Your task to perform on an android device: turn on priority inbox in the gmail app Image 0: 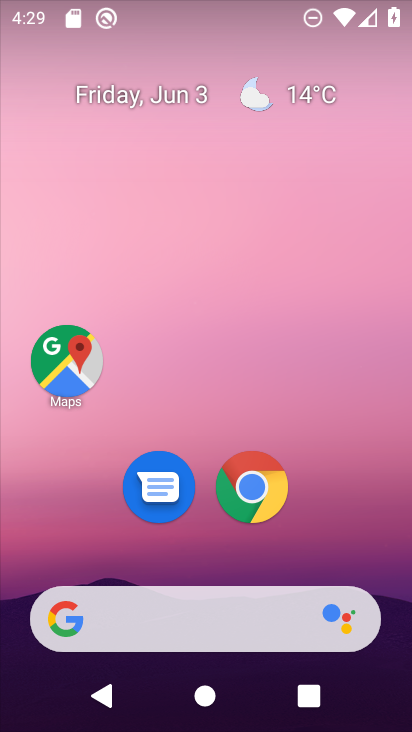
Step 0: drag from (148, 556) to (251, 35)
Your task to perform on an android device: turn on priority inbox in the gmail app Image 1: 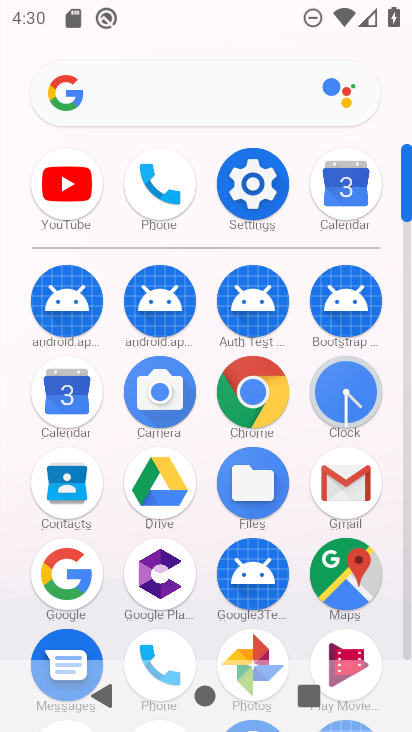
Step 1: click (346, 487)
Your task to perform on an android device: turn on priority inbox in the gmail app Image 2: 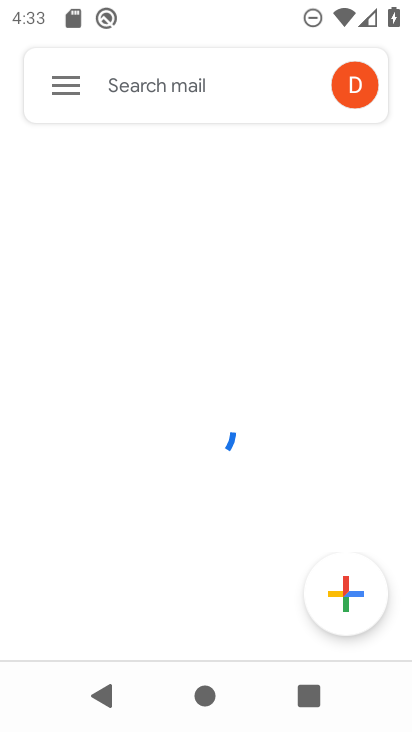
Step 2: click (54, 85)
Your task to perform on an android device: turn on priority inbox in the gmail app Image 3: 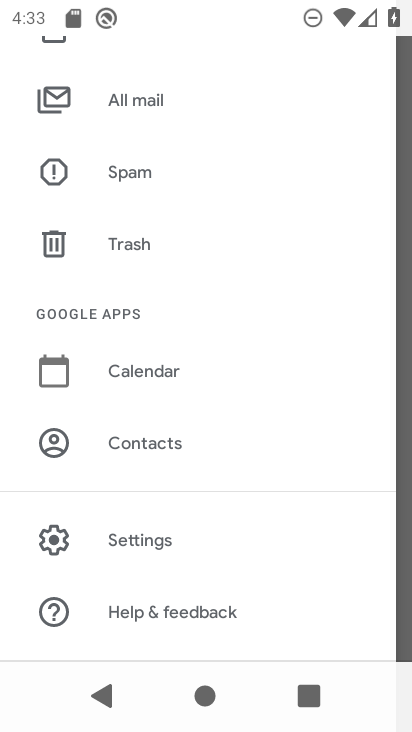
Step 3: click (153, 539)
Your task to perform on an android device: turn on priority inbox in the gmail app Image 4: 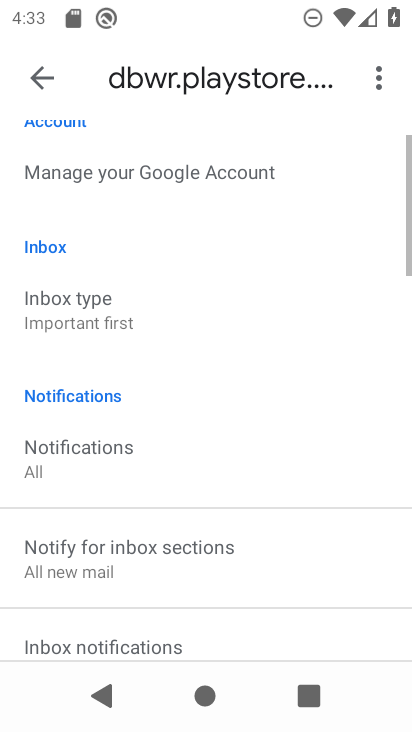
Step 4: click (97, 326)
Your task to perform on an android device: turn on priority inbox in the gmail app Image 5: 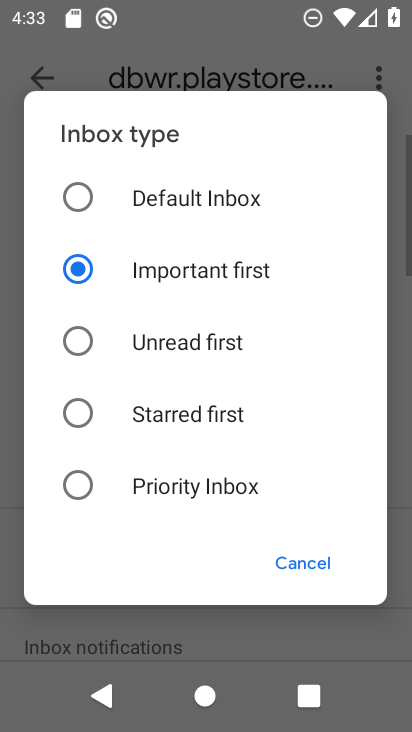
Step 5: click (75, 491)
Your task to perform on an android device: turn on priority inbox in the gmail app Image 6: 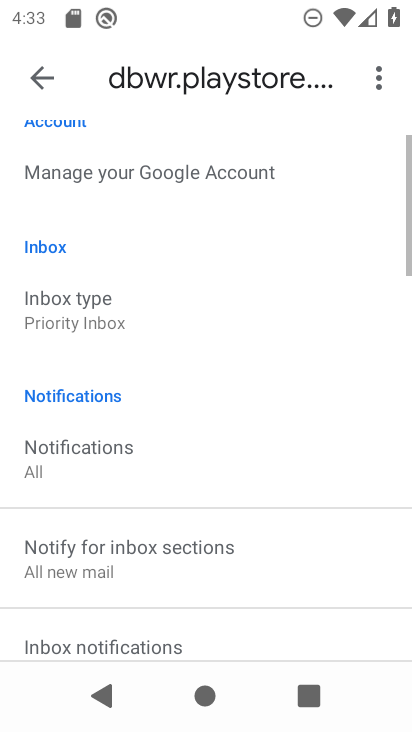
Step 6: task complete